Your task to perform on an android device: change the clock display to digital Image 0: 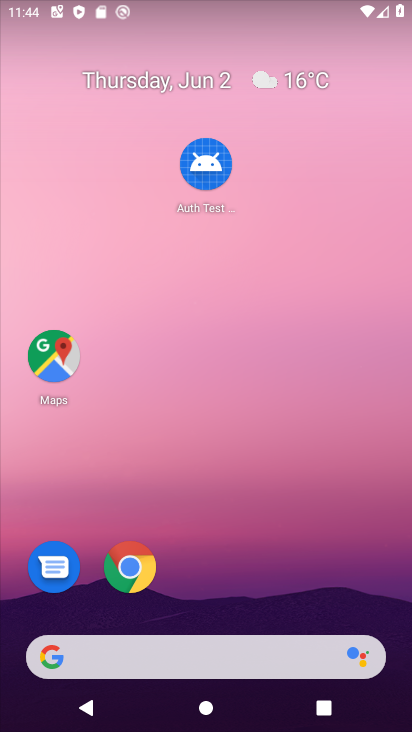
Step 0: drag from (195, 606) to (208, 72)
Your task to perform on an android device: change the clock display to digital Image 1: 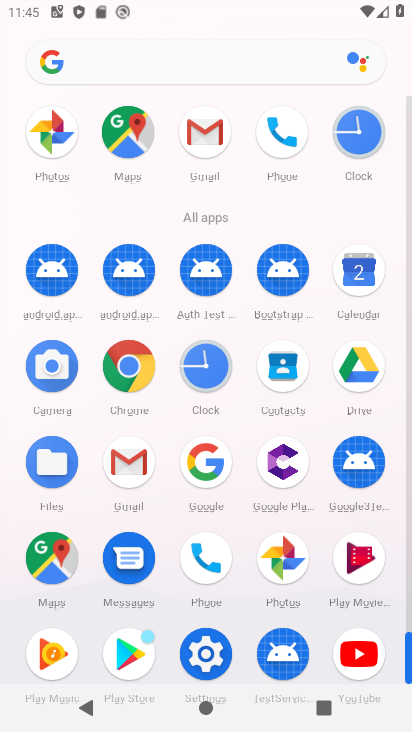
Step 1: click (359, 138)
Your task to perform on an android device: change the clock display to digital Image 2: 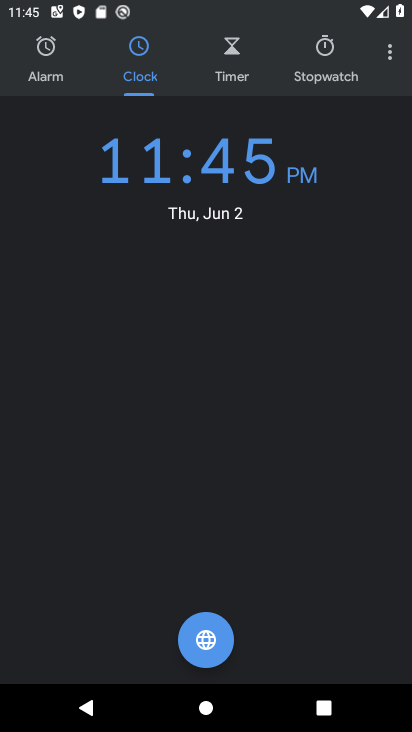
Step 2: click (397, 60)
Your task to perform on an android device: change the clock display to digital Image 3: 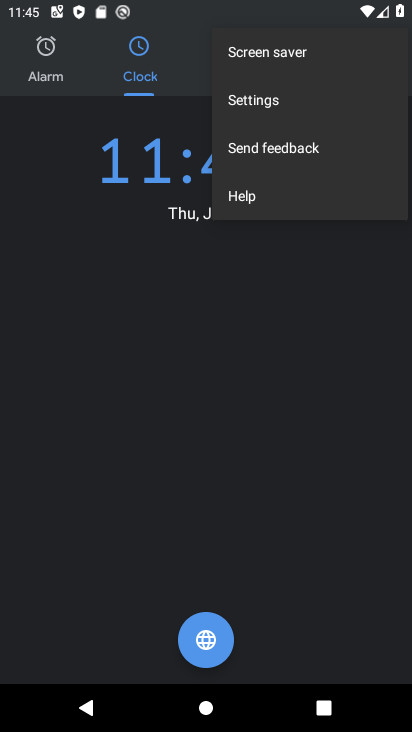
Step 3: click (281, 102)
Your task to perform on an android device: change the clock display to digital Image 4: 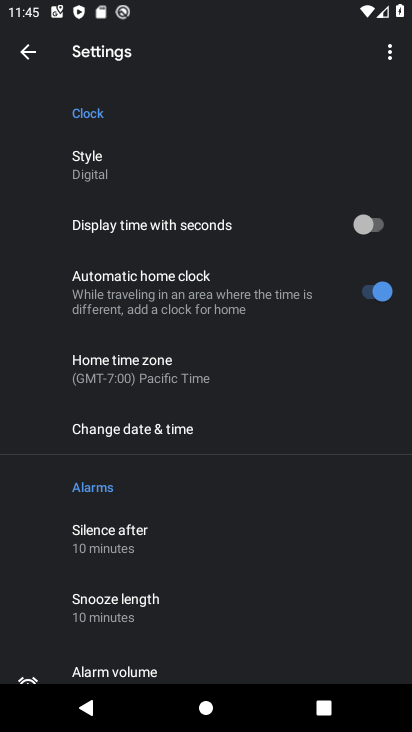
Step 4: task complete